Your task to perform on an android device: turn on priority inbox in the gmail app Image 0: 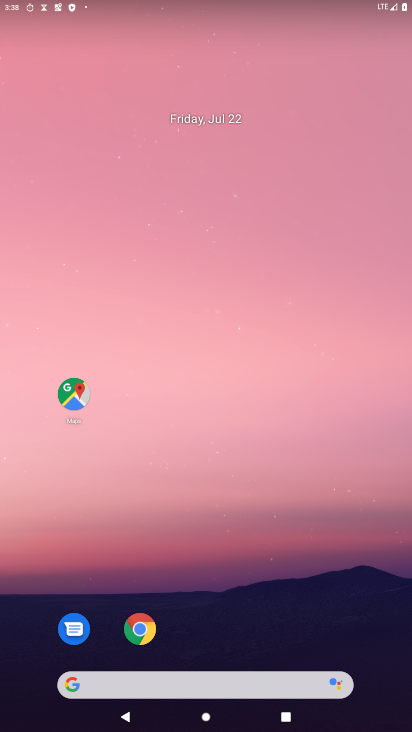
Step 0: drag from (234, 239) to (221, 9)
Your task to perform on an android device: turn on priority inbox in the gmail app Image 1: 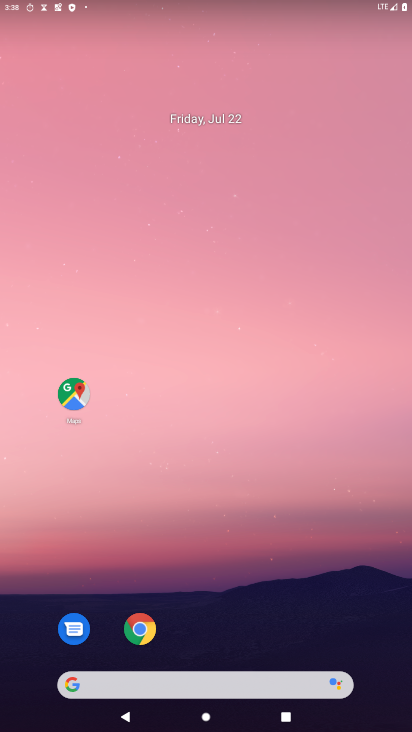
Step 1: drag from (242, 674) to (209, 2)
Your task to perform on an android device: turn on priority inbox in the gmail app Image 2: 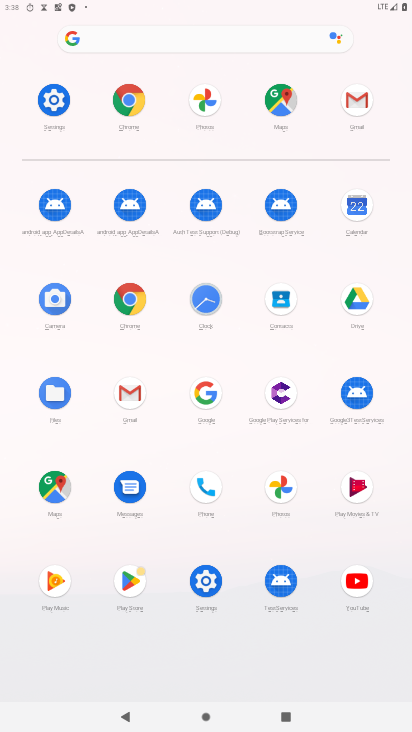
Step 2: click (130, 399)
Your task to perform on an android device: turn on priority inbox in the gmail app Image 3: 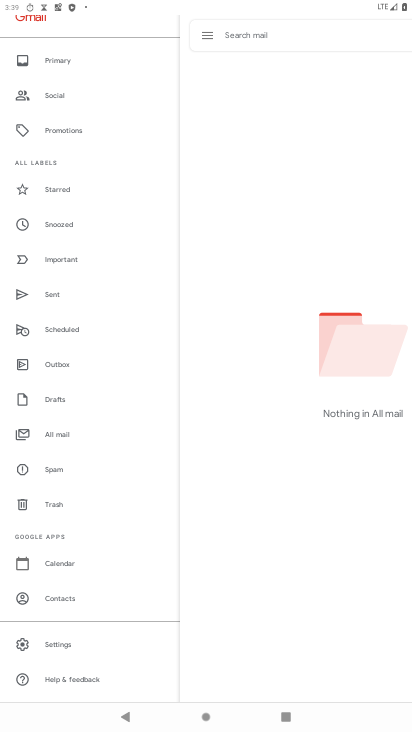
Step 3: click (64, 643)
Your task to perform on an android device: turn on priority inbox in the gmail app Image 4: 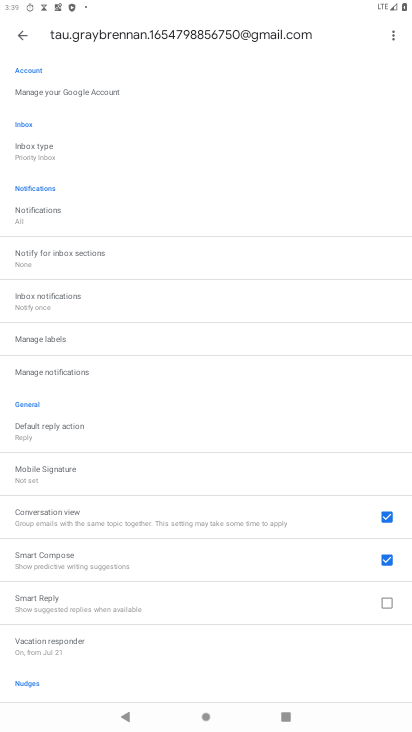
Step 4: click (48, 153)
Your task to perform on an android device: turn on priority inbox in the gmail app Image 5: 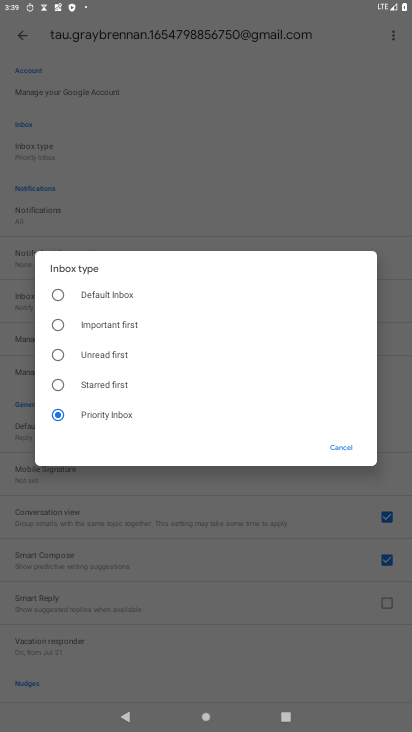
Step 5: task complete